Your task to perform on an android device: Add razer nari to the cart on bestbuy.com Image 0: 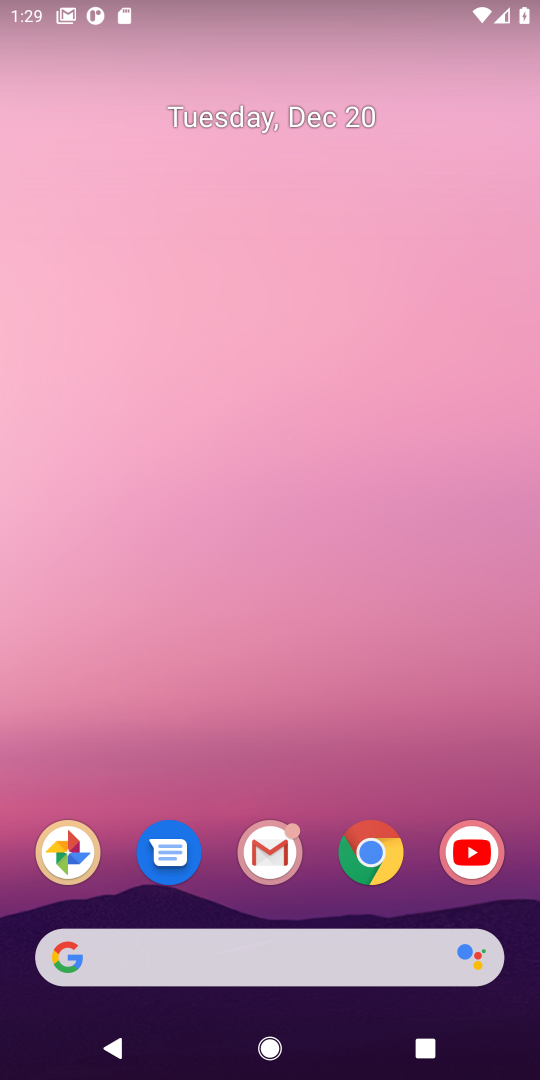
Step 0: click (365, 855)
Your task to perform on an android device: Add razer nari to the cart on bestbuy.com Image 1: 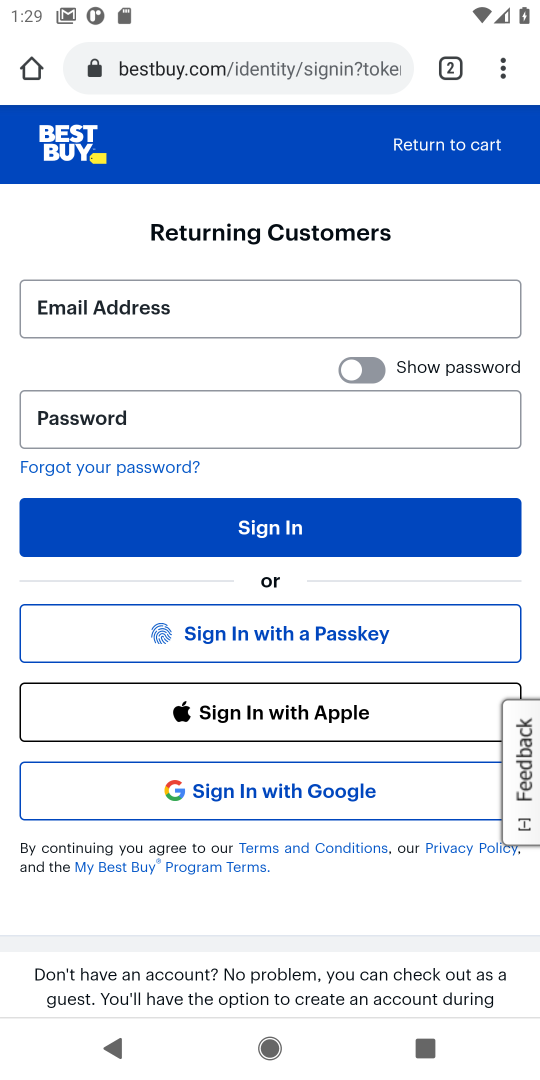
Step 1: press back button
Your task to perform on an android device: Add razer nari to the cart on bestbuy.com Image 2: 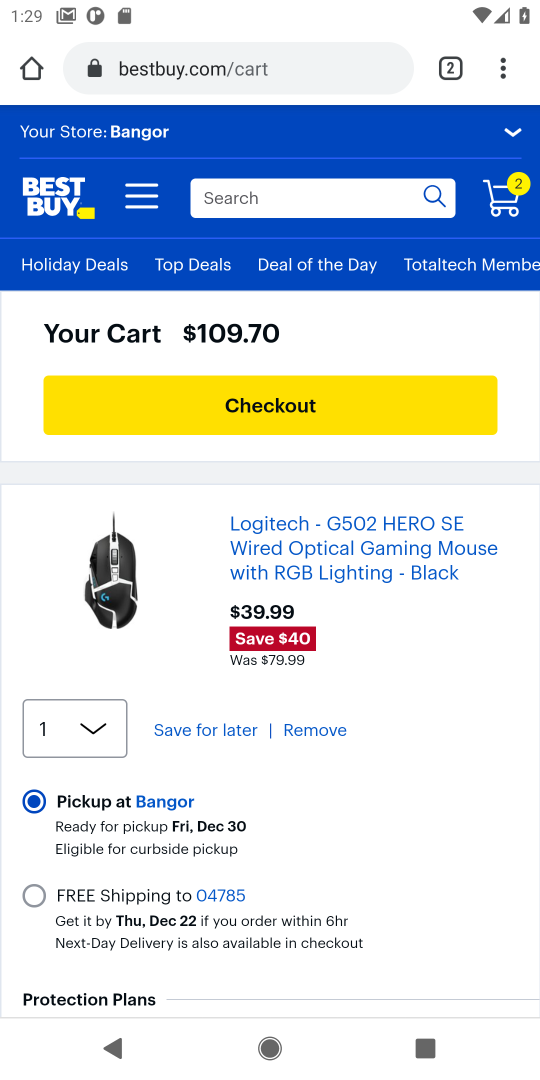
Step 2: click (215, 201)
Your task to perform on an android device: Add razer nari to the cart on bestbuy.com Image 3: 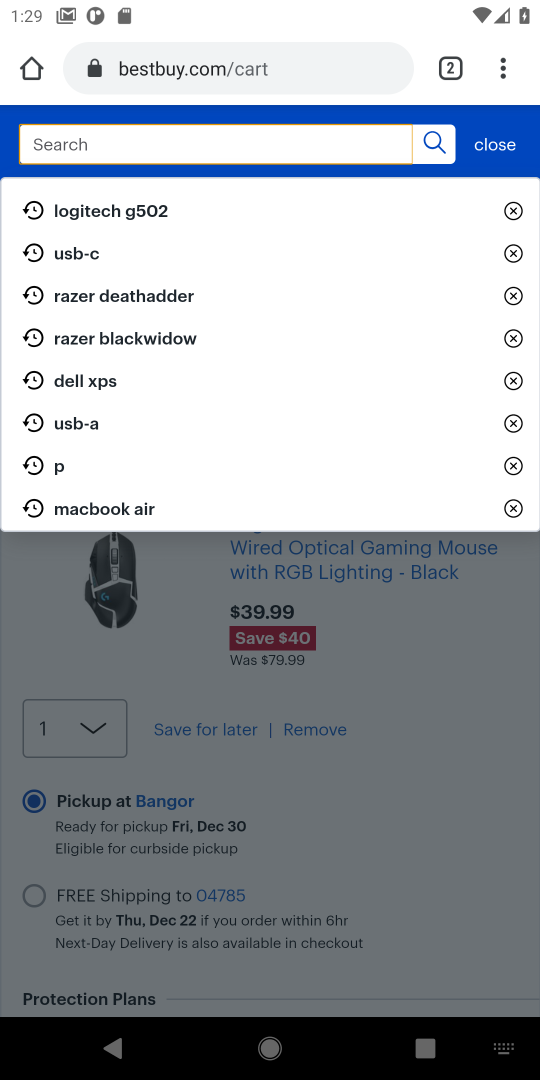
Step 3: type "razer nari"
Your task to perform on an android device: Add razer nari to the cart on bestbuy.com Image 4: 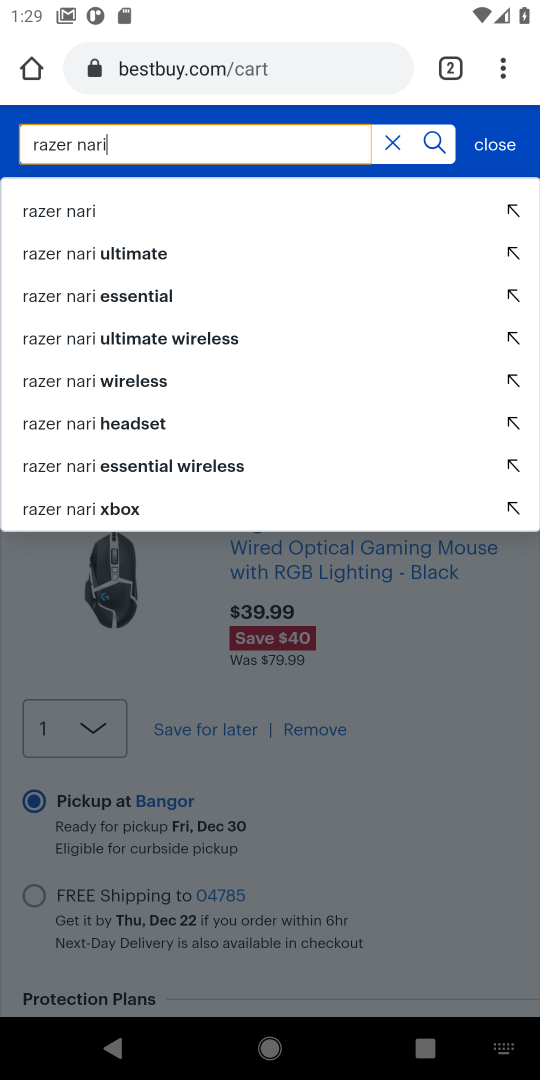
Step 4: click (73, 218)
Your task to perform on an android device: Add razer nari to the cart on bestbuy.com Image 5: 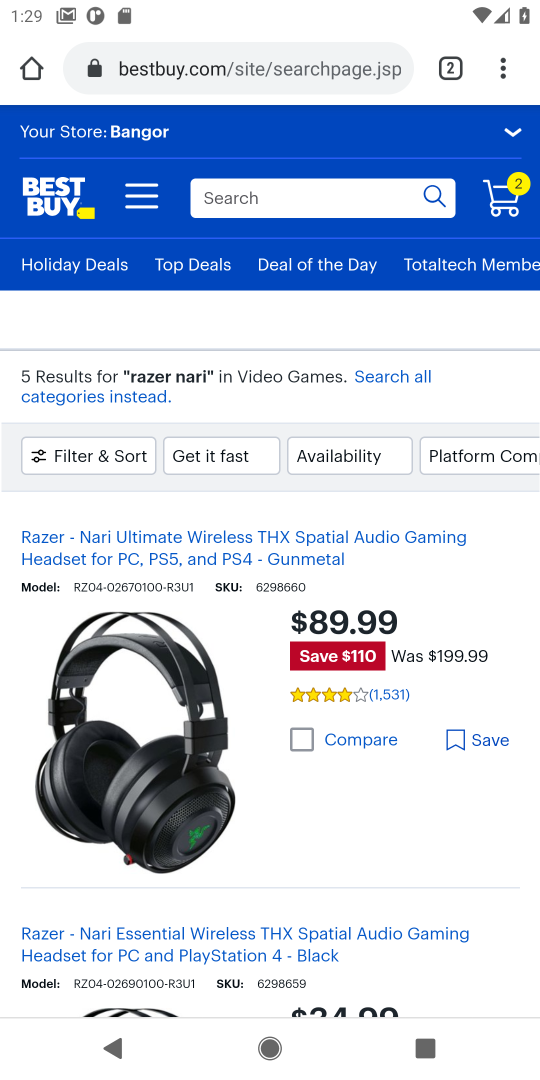
Step 5: drag from (185, 622) to (154, 330)
Your task to perform on an android device: Add razer nari to the cart on bestbuy.com Image 6: 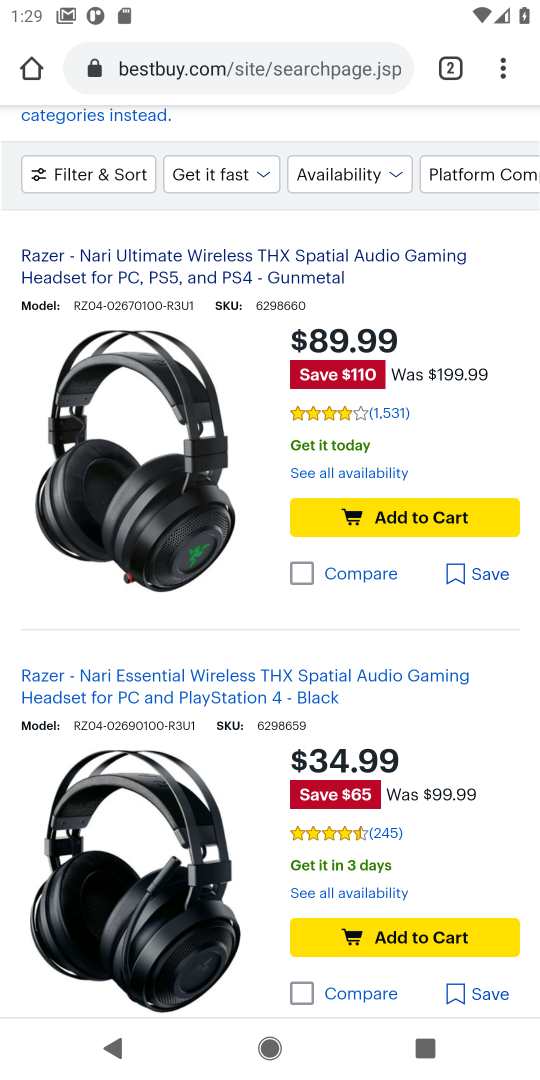
Step 6: click (404, 515)
Your task to perform on an android device: Add razer nari to the cart on bestbuy.com Image 7: 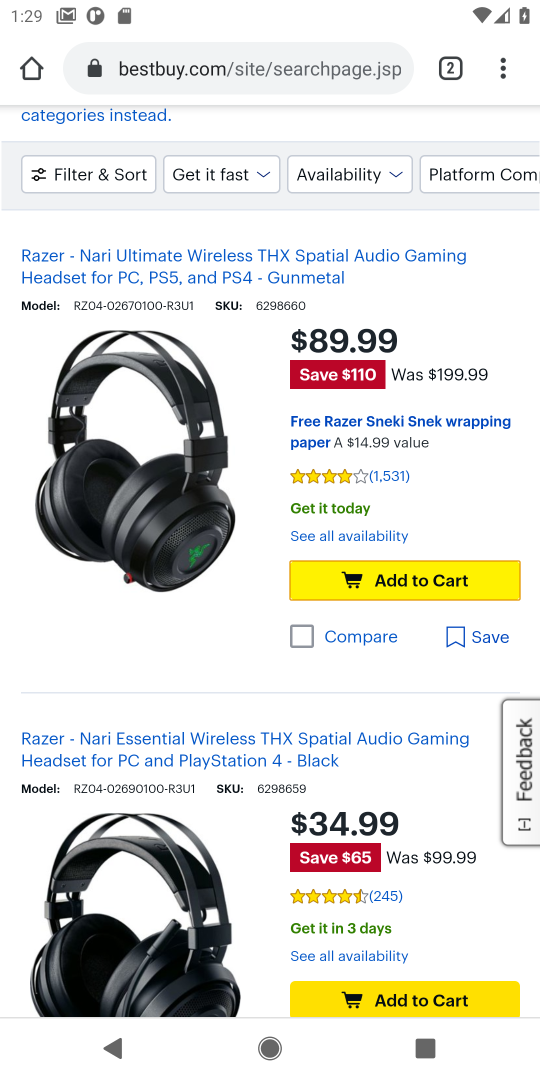
Step 7: click (394, 585)
Your task to perform on an android device: Add razer nari to the cart on bestbuy.com Image 8: 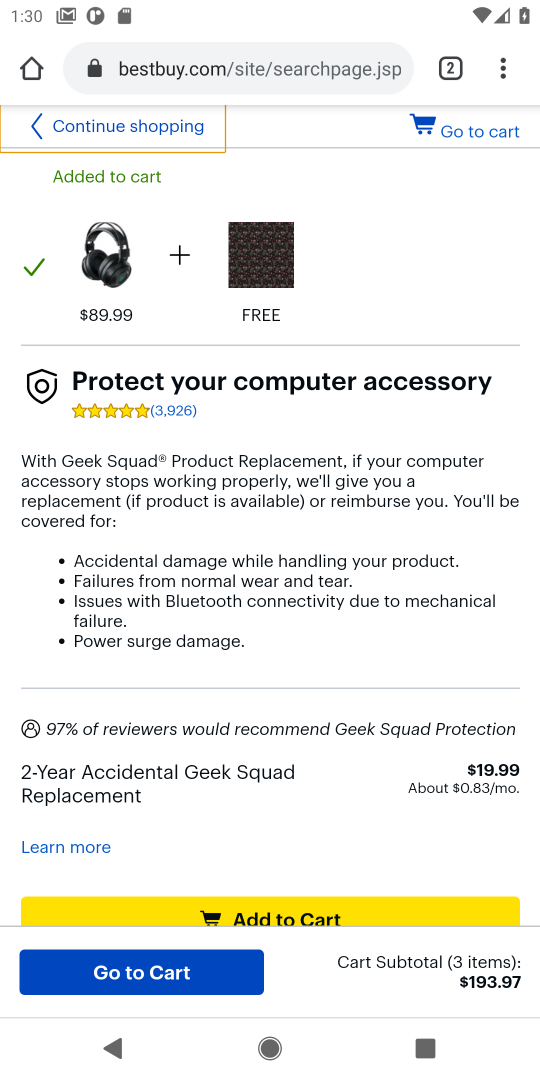
Step 8: task complete